Your task to perform on an android device: toggle priority inbox in the gmail app Image 0: 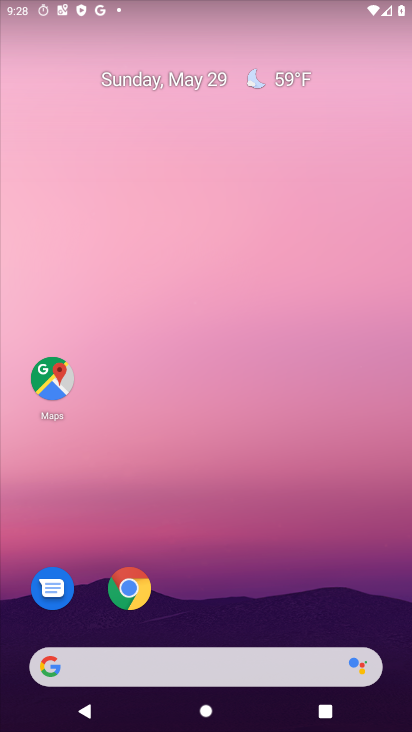
Step 0: drag from (199, 650) to (291, 16)
Your task to perform on an android device: toggle priority inbox in the gmail app Image 1: 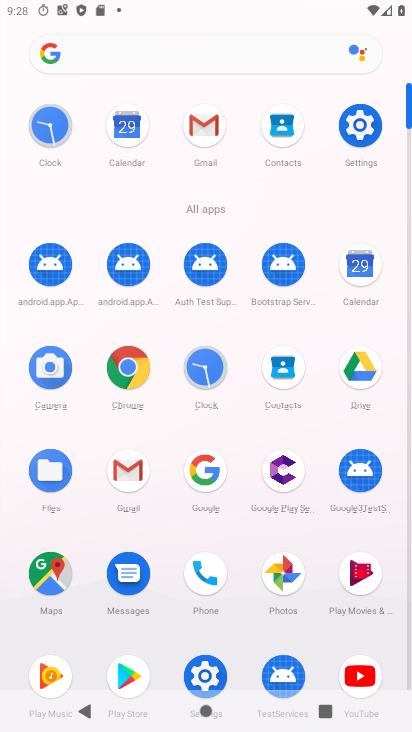
Step 1: click (136, 470)
Your task to perform on an android device: toggle priority inbox in the gmail app Image 2: 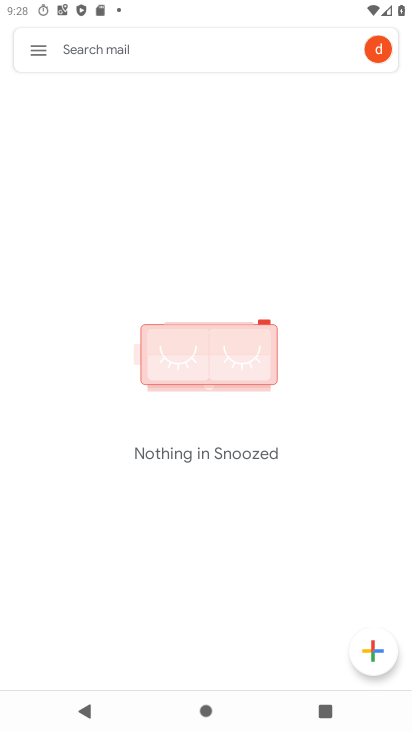
Step 2: click (41, 47)
Your task to perform on an android device: toggle priority inbox in the gmail app Image 3: 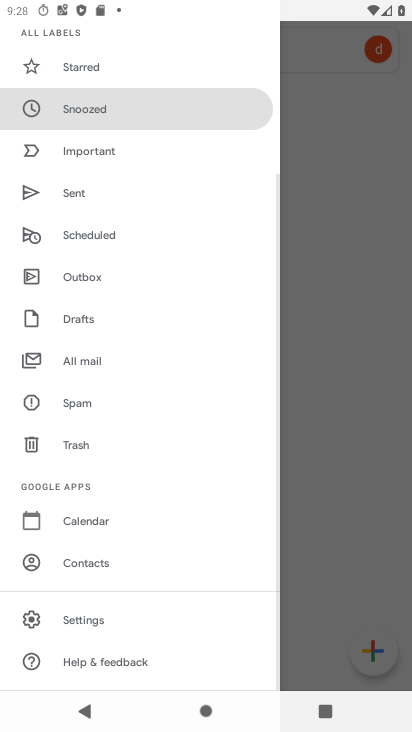
Step 3: click (97, 617)
Your task to perform on an android device: toggle priority inbox in the gmail app Image 4: 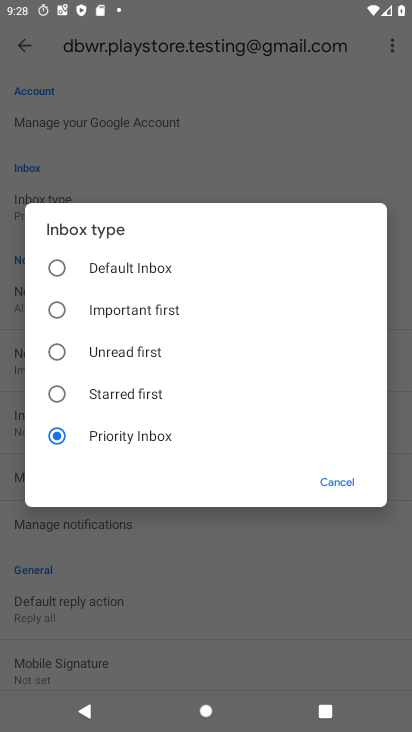
Step 4: click (118, 273)
Your task to perform on an android device: toggle priority inbox in the gmail app Image 5: 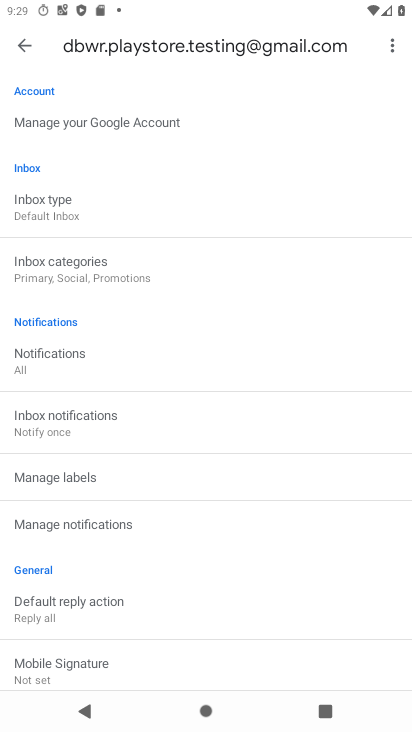
Step 5: task complete